Your task to perform on an android device: open a new tab in the chrome app Image 0: 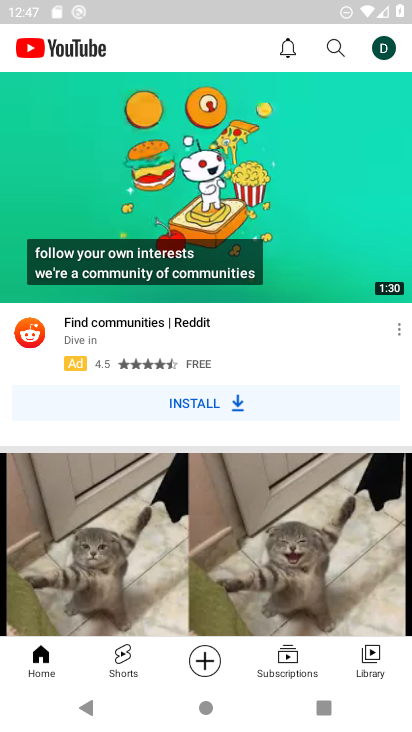
Step 0: press home button
Your task to perform on an android device: open a new tab in the chrome app Image 1: 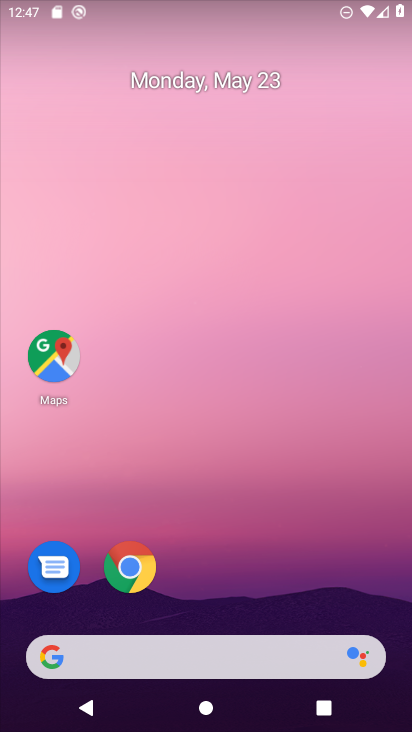
Step 1: click (123, 580)
Your task to perform on an android device: open a new tab in the chrome app Image 2: 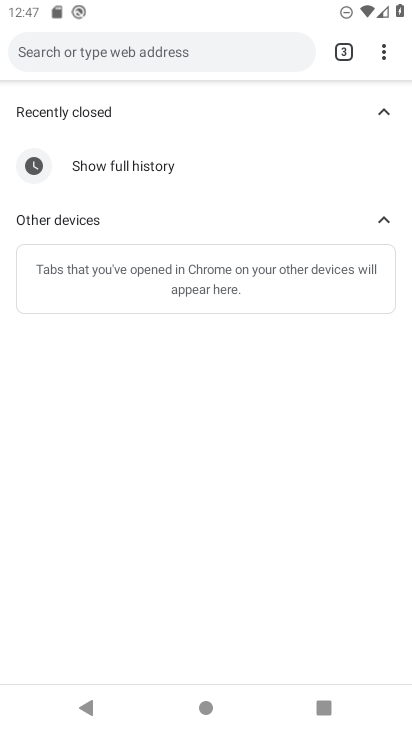
Step 2: click (358, 44)
Your task to perform on an android device: open a new tab in the chrome app Image 3: 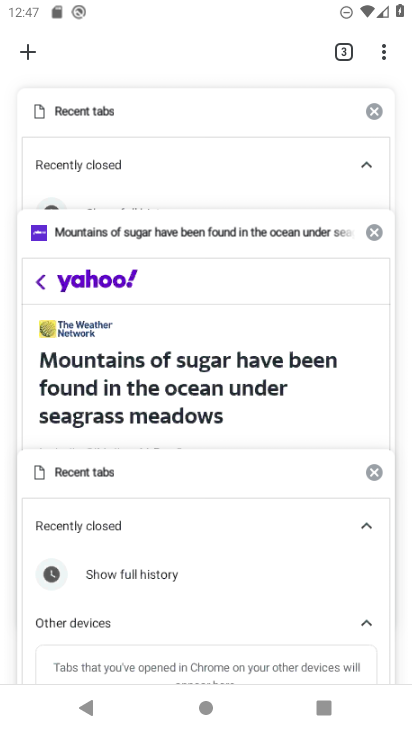
Step 3: click (33, 59)
Your task to perform on an android device: open a new tab in the chrome app Image 4: 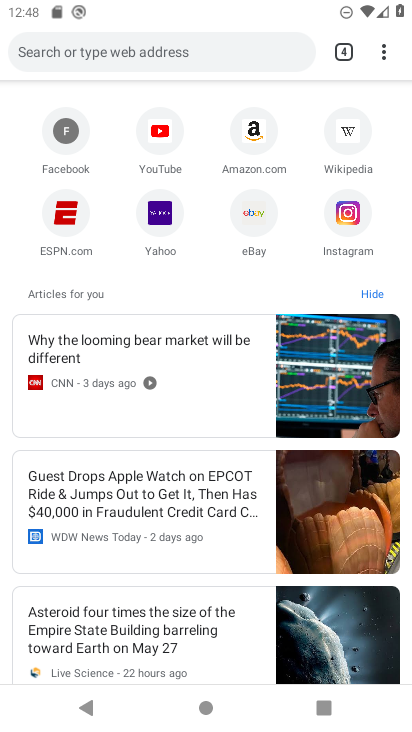
Step 4: task complete